Your task to perform on an android device: Open maps Image 0: 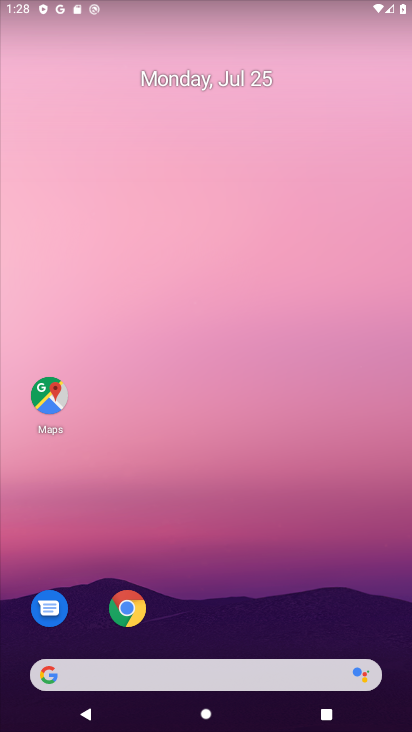
Step 0: click (49, 394)
Your task to perform on an android device: Open maps Image 1: 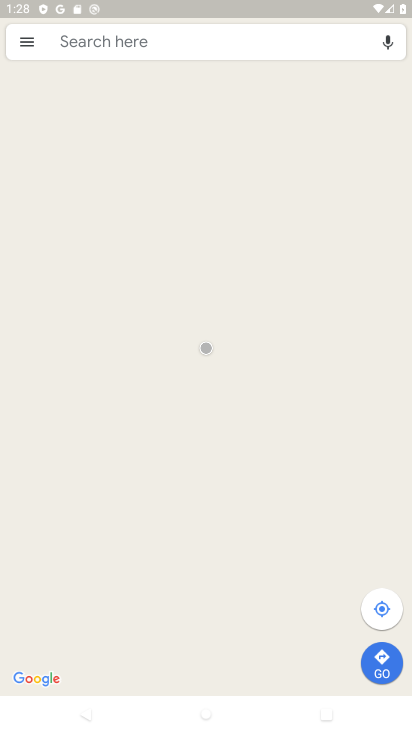
Step 1: task complete